Your task to perform on an android device: Clear the shopping cart on newegg. Add razer nari to the cart on newegg Image 0: 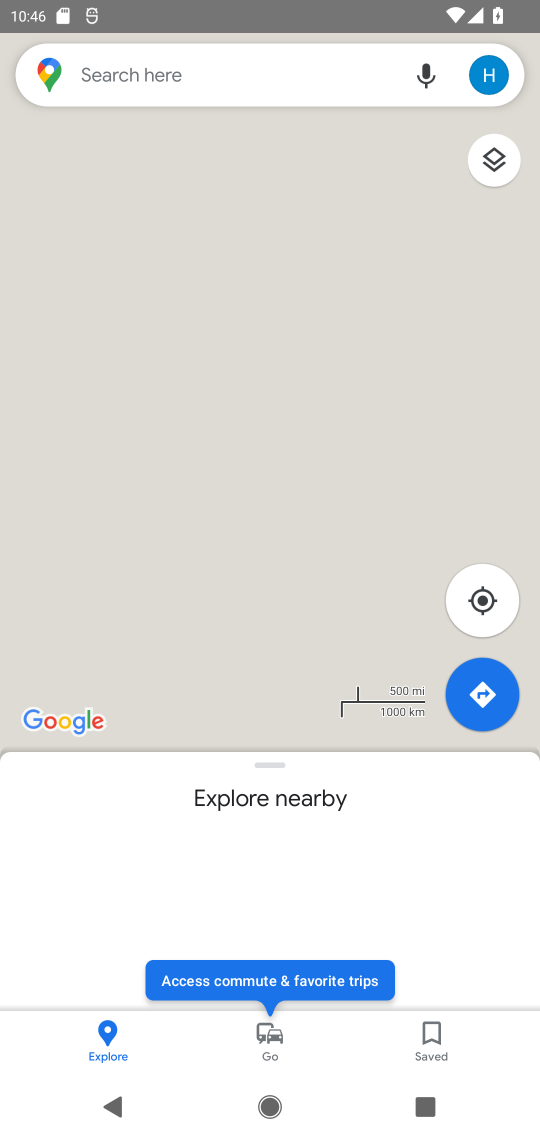
Step 0: press home button
Your task to perform on an android device: Clear the shopping cart on newegg. Add razer nari to the cart on newegg Image 1: 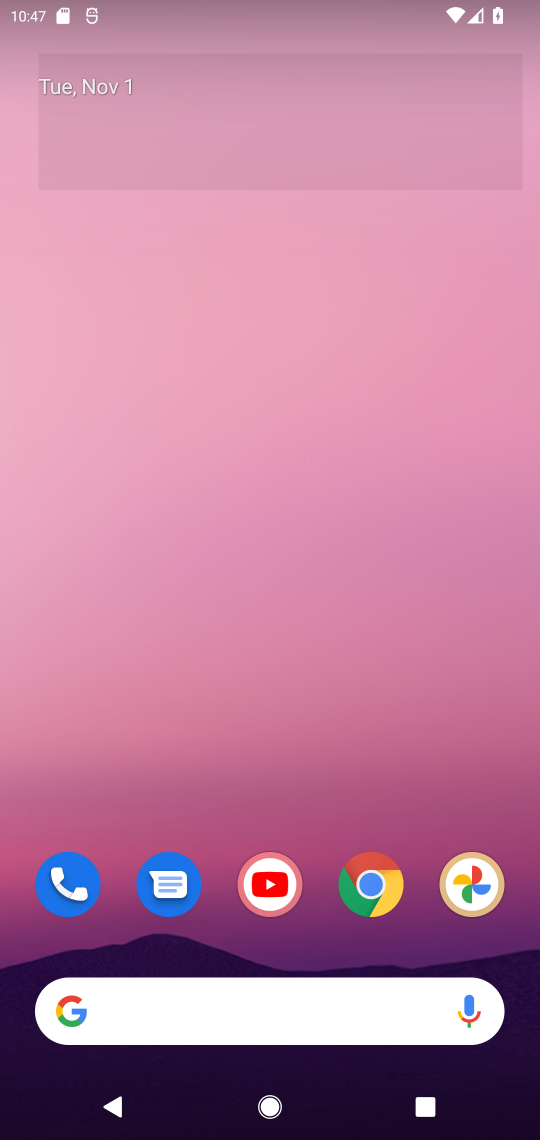
Step 1: click (366, 889)
Your task to perform on an android device: Clear the shopping cart on newegg. Add razer nari to the cart on newegg Image 2: 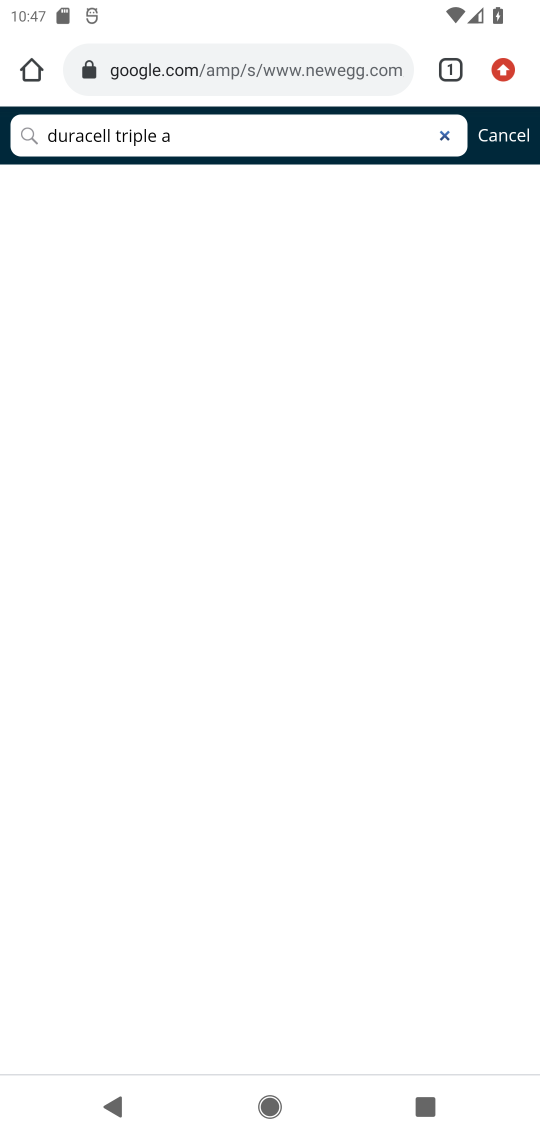
Step 2: click (214, 79)
Your task to perform on an android device: Clear the shopping cart on newegg. Add razer nari to the cart on newegg Image 3: 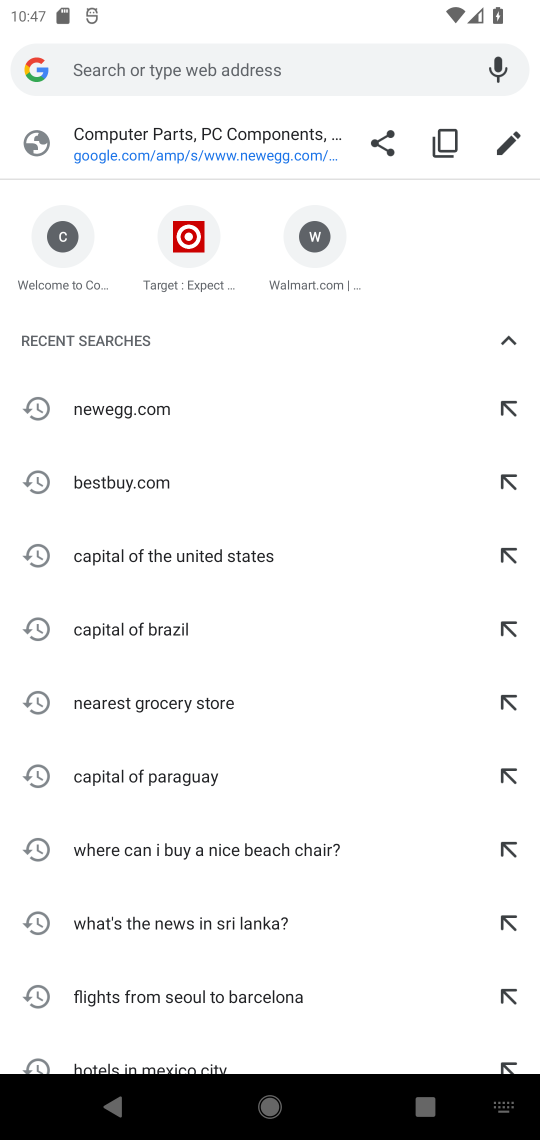
Step 3: click (109, 417)
Your task to perform on an android device: Clear the shopping cart on newegg. Add razer nari to the cart on newegg Image 4: 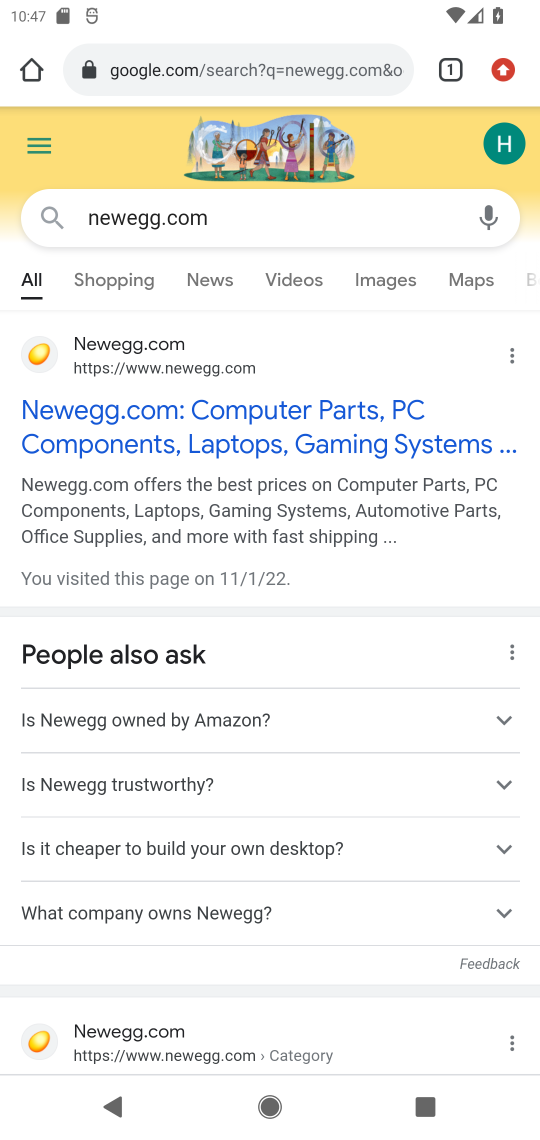
Step 4: click (109, 417)
Your task to perform on an android device: Clear the shopping cart on newegg. Add razer nari to the cart on newegg Image 5: 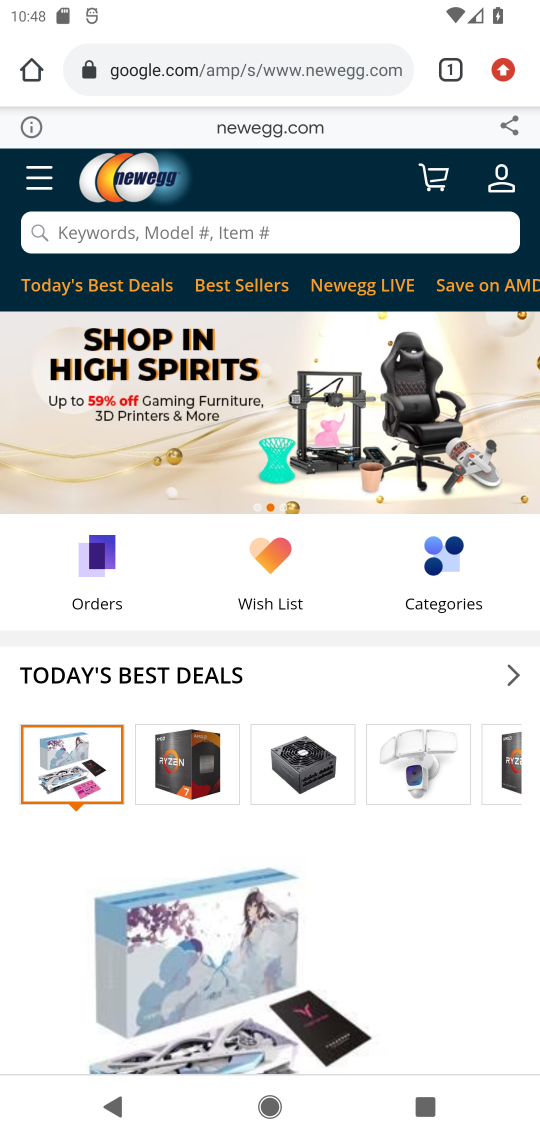
Step 5: click (130, 241)
Your task to perform on an android device: Clear the shopping cart on newegg. Add razer nari to the cart on newegg Image 6: 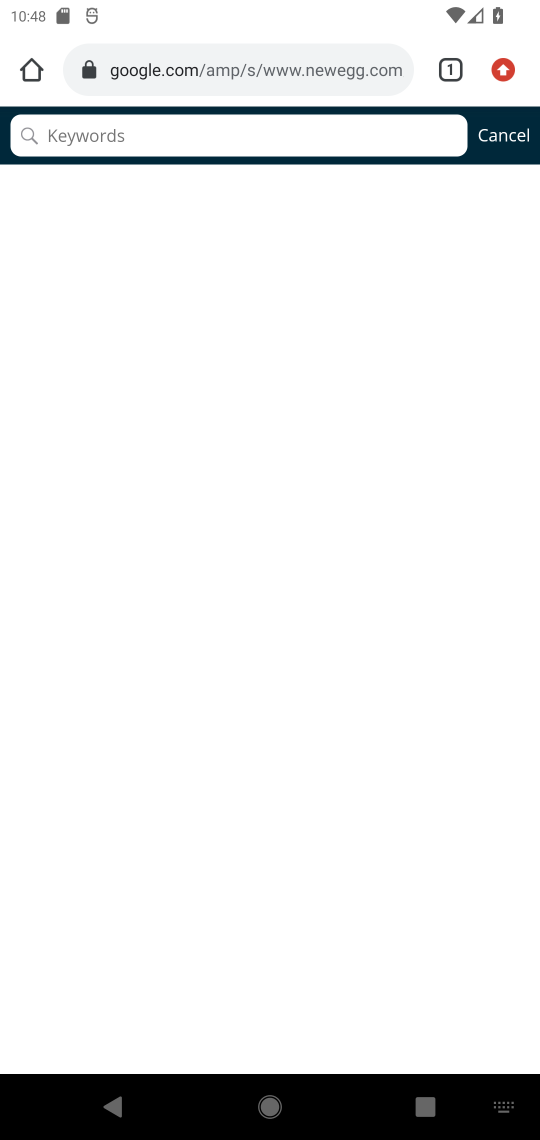
Step 6: click (174, 142)
Your task to perform on an android device: Clear the shopping cart on newegg. Add razer nari to the cart on newegg Image 7: 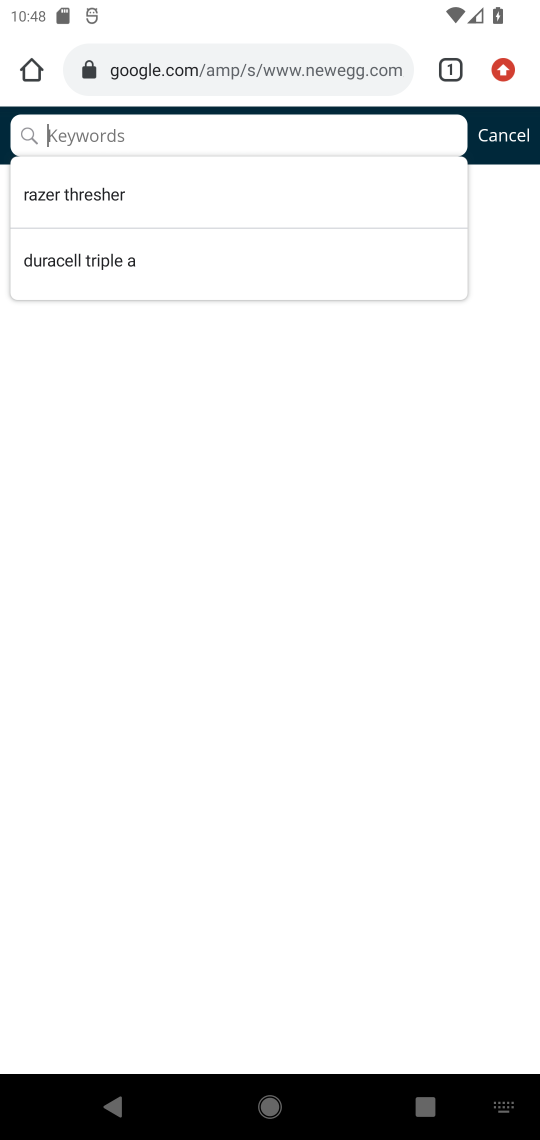
Step 7: type "razer nari"
Your task to perform on an android device: Clear the shopping cart on newegg. Add razer nari to the cart on newegg Image 8: 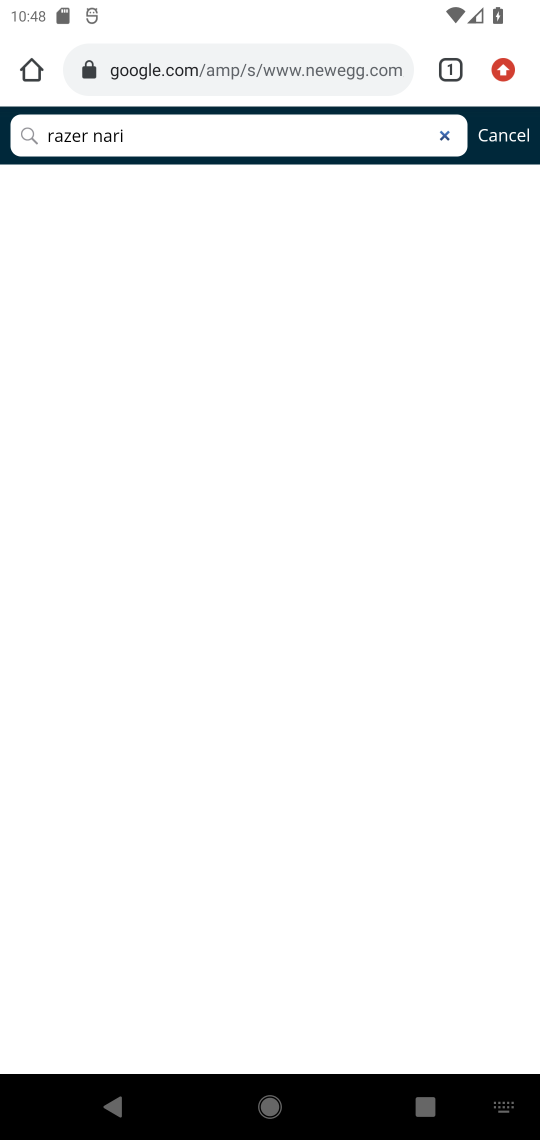
Step 8: click (30, 144)
Your task to perform on an android device: Clear the shopping cart on newegg. Add razer nari to the cart on newegg Image 9: 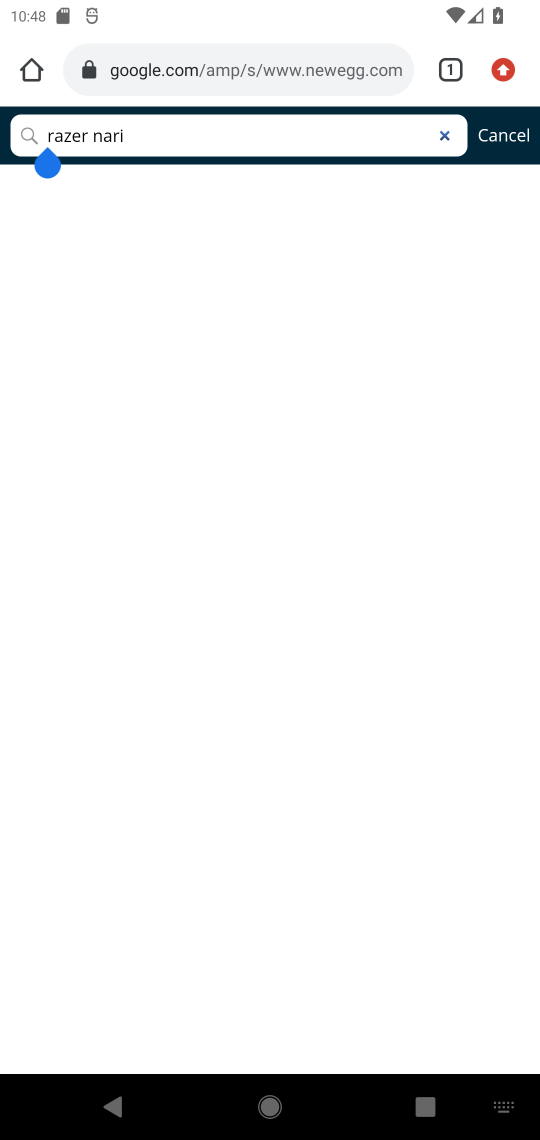
Step 9: task complete